Your task to perform on an android device: Open the map Image 0: 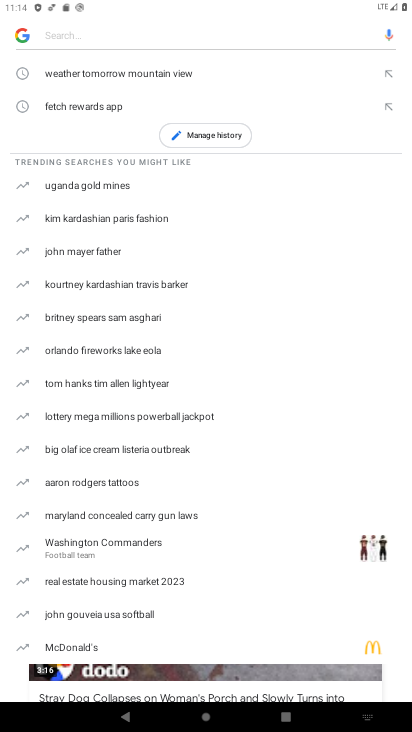
Step 0: press home button
Your task to perform on an android device: Open the map Image 1: 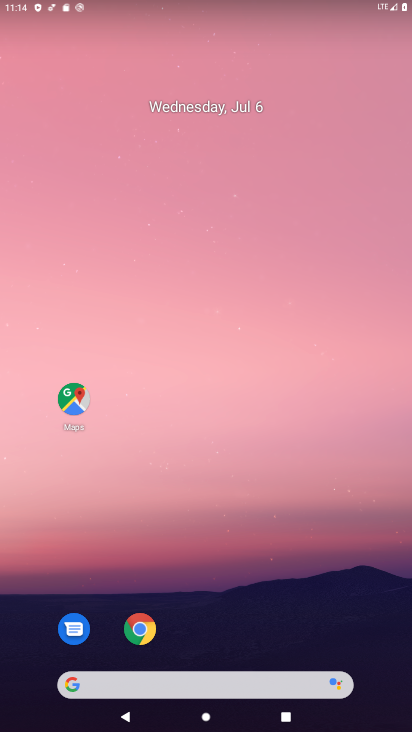
Step 1: click (83, 417)
Your task to perform on an android device: Open the map Image 2: 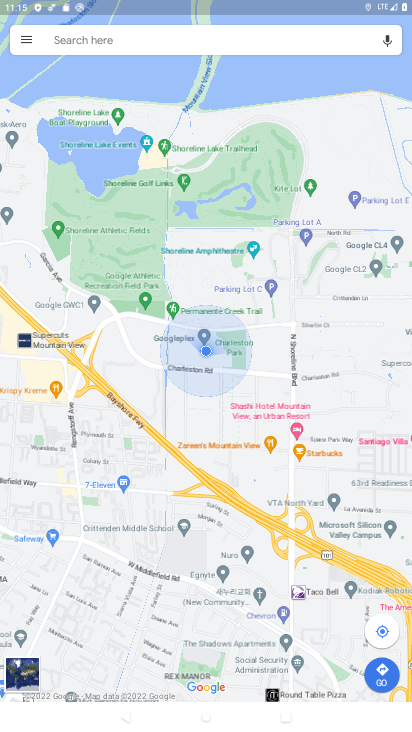
Step 2: task complete